Your task to perform on an android device: search for starred emails in the gmail app Image 0: 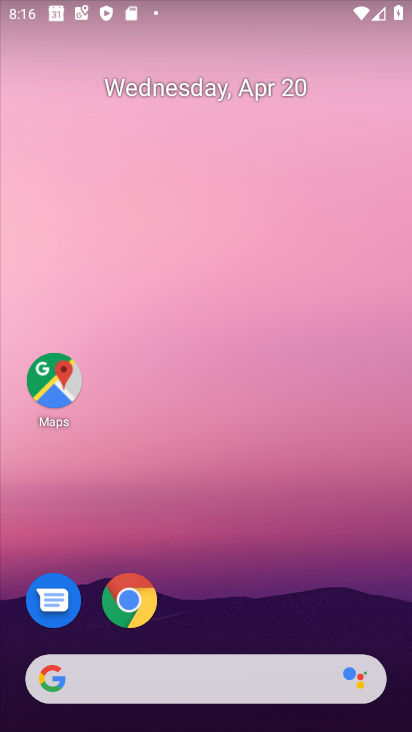
Step 0: drag from (215, 591) to (267, 56)
Your task to perform on an android device: search for starred emails in the gmail app Image 1: 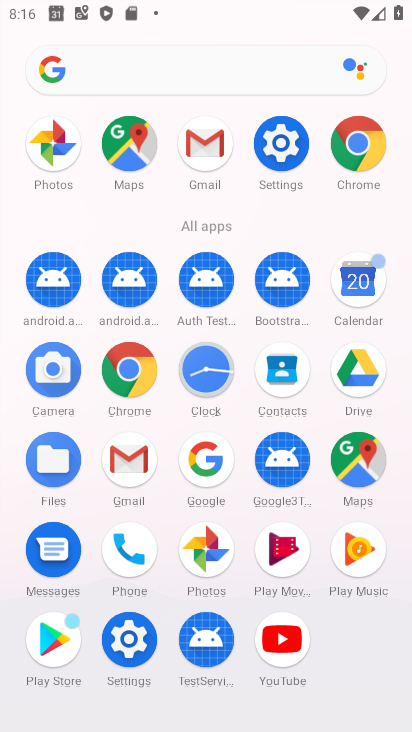
Step 1: click (189, 160)
Your task to perform on an android device: search for starred emails in the gmail app Image 2: 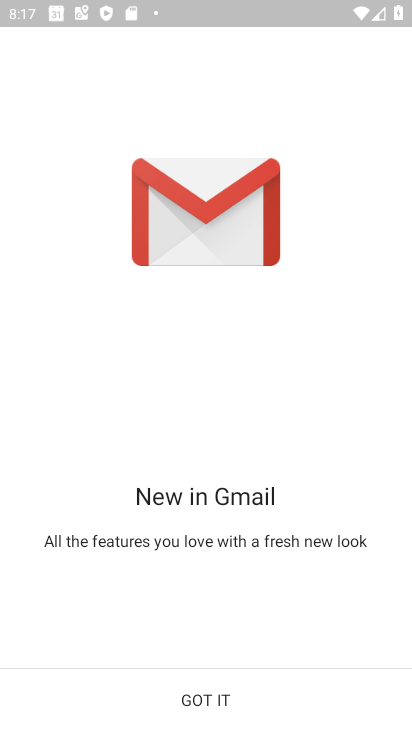
Step 2: click (202, 693)
Your task to perform on an android device: search for starred emails in the gmail app Image 3: 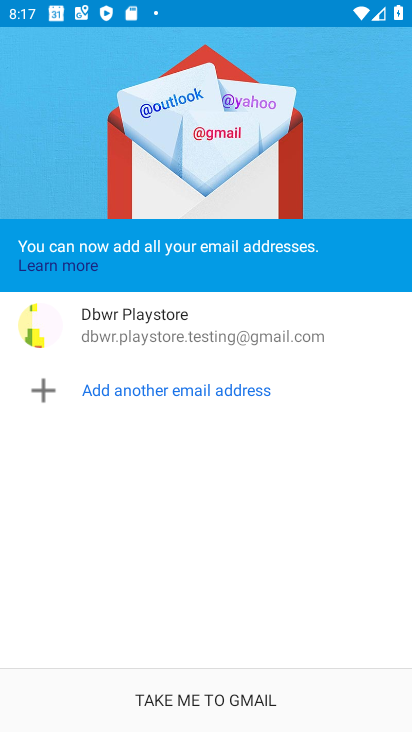
Step 3: click (191, 709)
Your task to perform on an android device: search for starred emails in the gmail app Image 4: 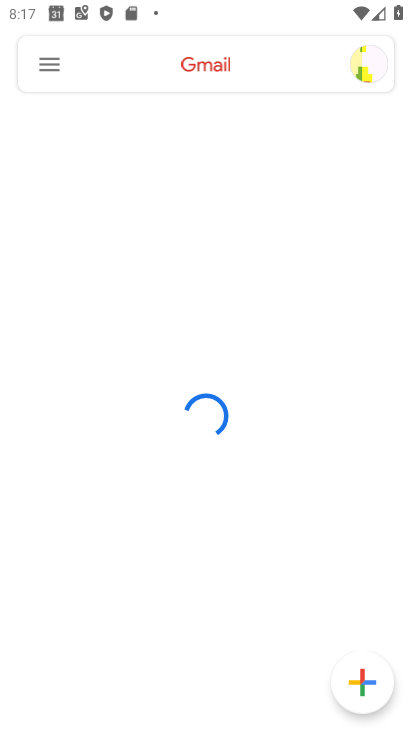
Step 4: click (44, 64)
Your task to perform on an android device: search for starred emails in the gmail app Image 5: 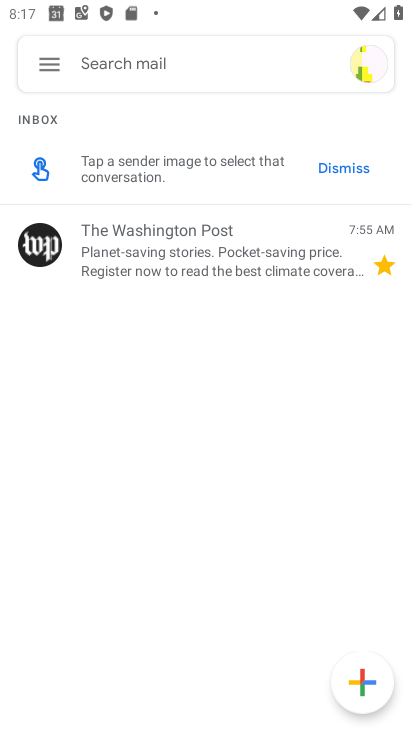
Step 5: click (39, 65)
Your task to perform on an android device: search for starred emails in the gmail app Image 6: 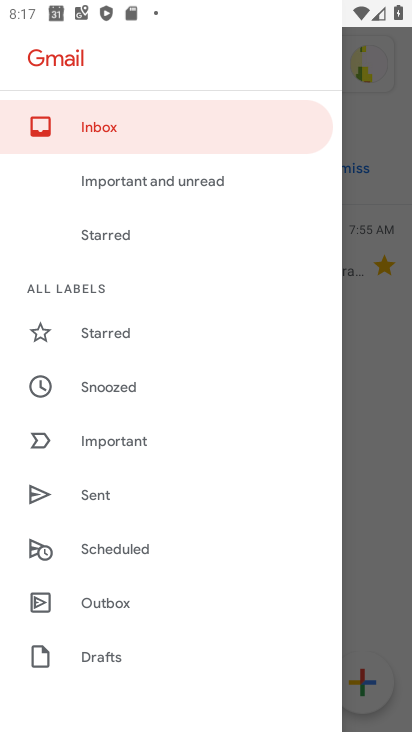
Step 6: click (118, 348)
Your task to perform on an android device: search for starred emails in the gmail app Image 7: 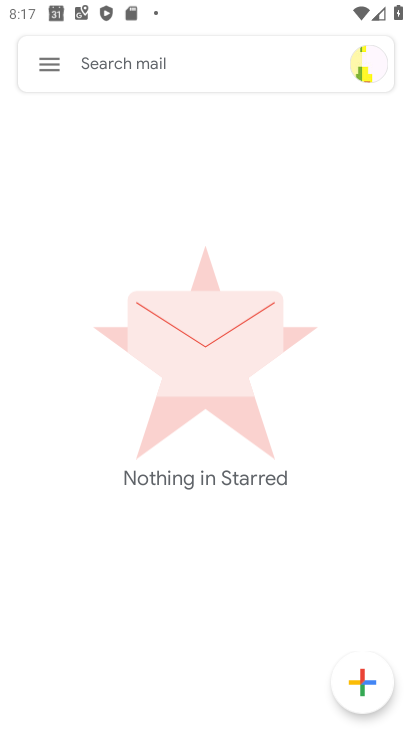
Step 7: task complete